Your task to perform on an android device: Open calendar and show me the first week of next month Image 0: 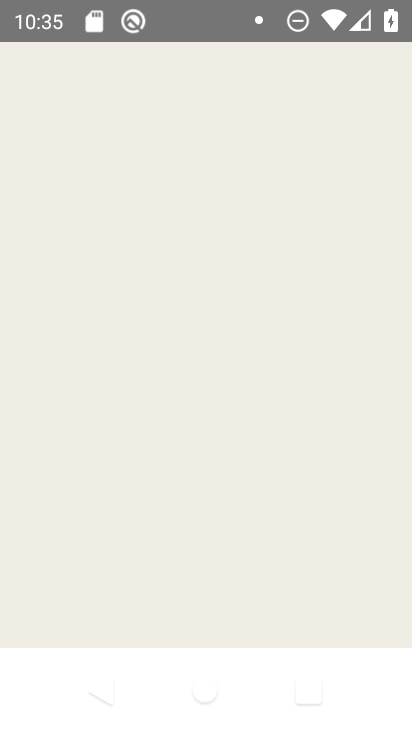
Step 0: press home button
Your task to perform on an android device: Open calendar and show me the first week of next month Image 1: 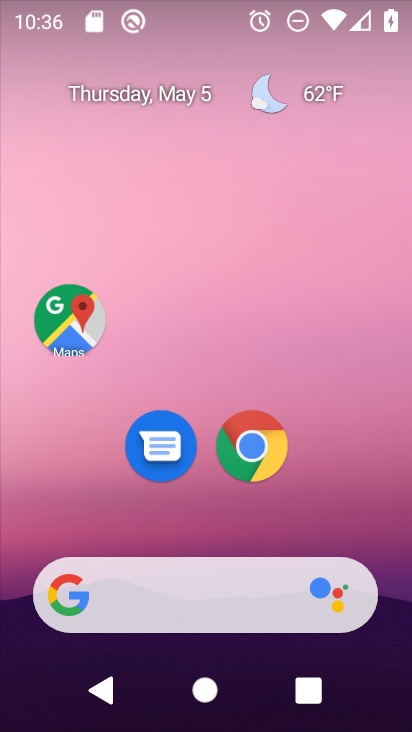
Step 1: drag from (335, 418) to (331, 117)
Your task to perform on an android device: Open calendar and show me the first week of next month Image 2: 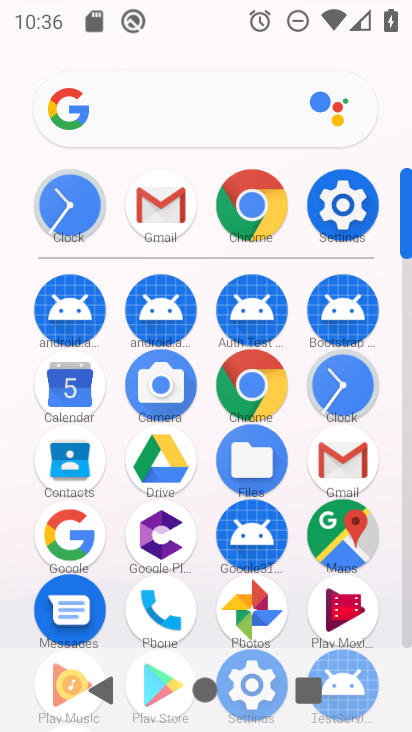
Step 2: click (74, 393)
Your task to perform on an android device: Open calendar and show me the first week of next month Image 3: 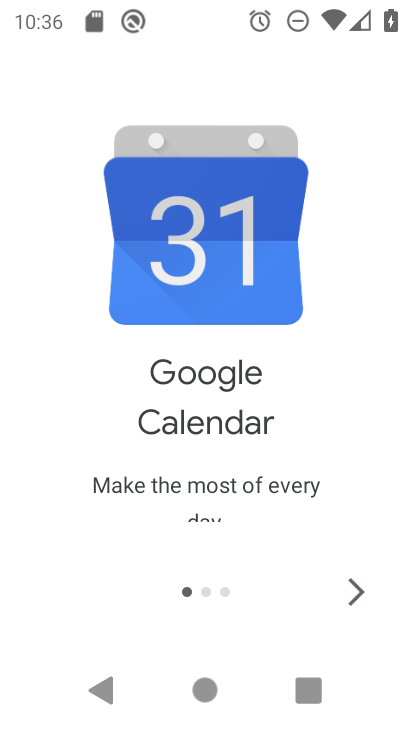
Step 3: click (339, 585)
Your task to perform on an android device: Open calendar and show me the first week of next month Image 4: 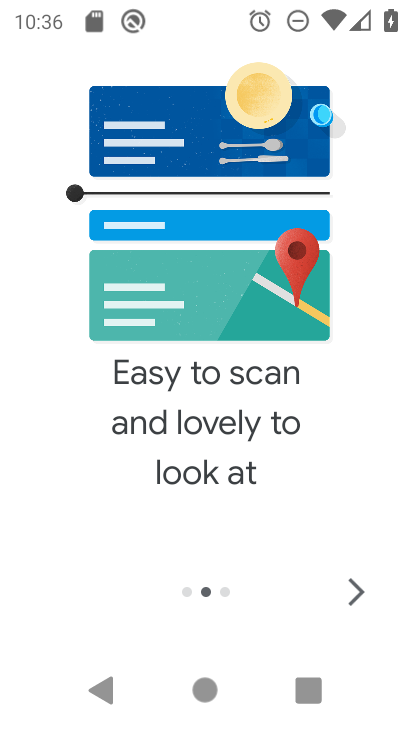
Step 4: click (332, 588)
Your task to perform on an android device: Open calendar and show me the first week of next month Image 5: 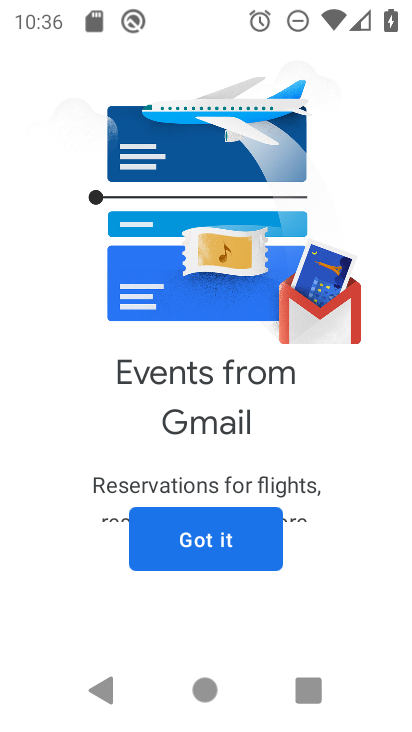
Step 5: click (233, 550)
Your task to perform on an android device: Open calendar and show me the first week of next month Image 6: 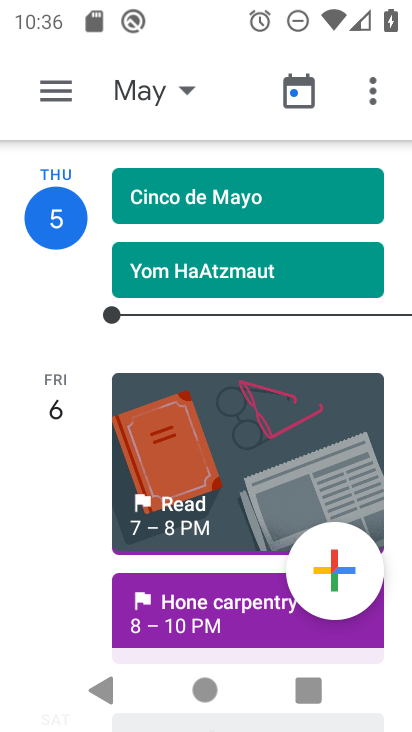
Step 6: click (53, 81)
Your task to perform on an android device: Open calendar and show me the first week of next month Image 7: 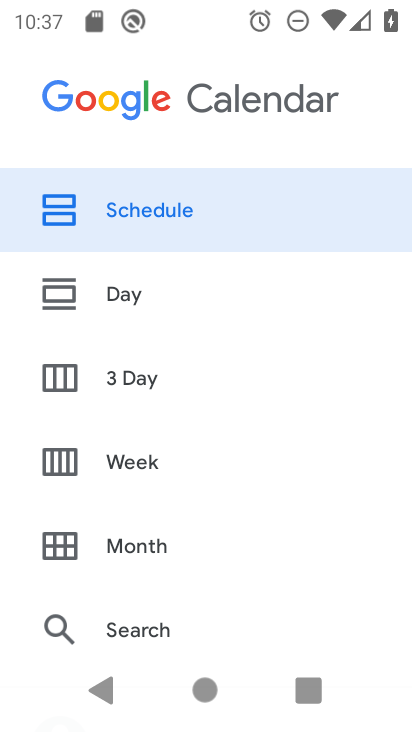
Step 7: click (126, 546)
Your task to perform on an android device: Open calendar and show me the first week of next month Image 8: 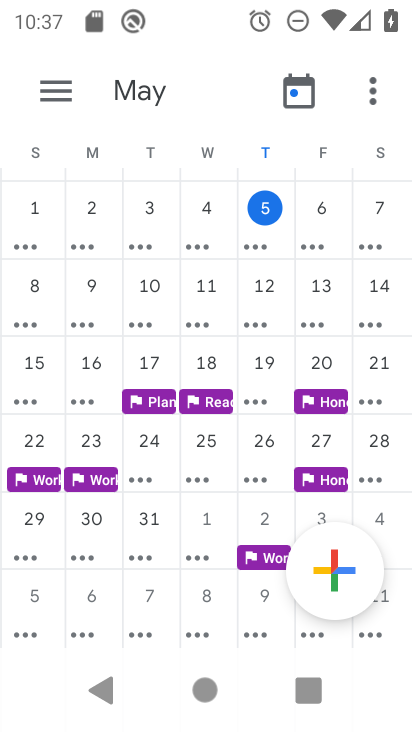
Step 8: drag from (367, 439) to (2, 459)
Your task to perform on an android device: Open calendar and show me the first week of next month Image 9: 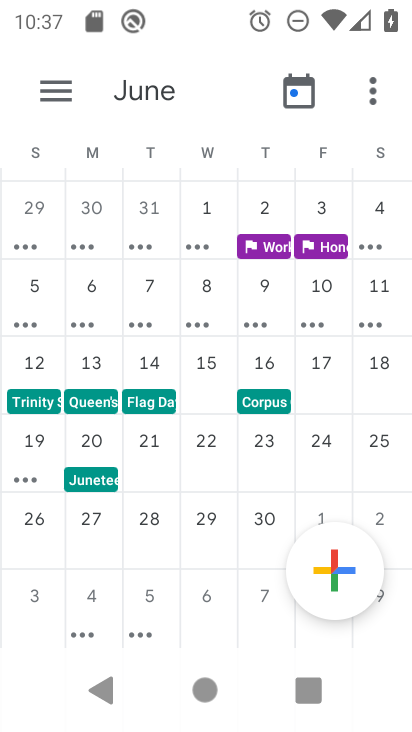
Step 9: click (215, 217)
Your task to perform on an android device: Open calendar and show me the first week of next month Image 10: 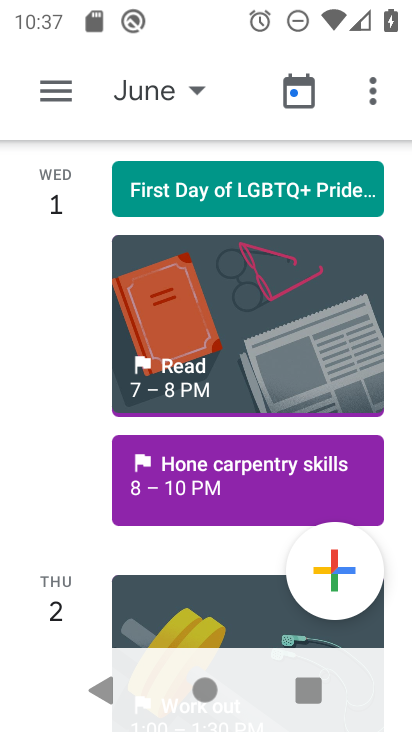
Step 10: task complete